Your task to perform on an android device: open a new tab in the chrome app Image 0: 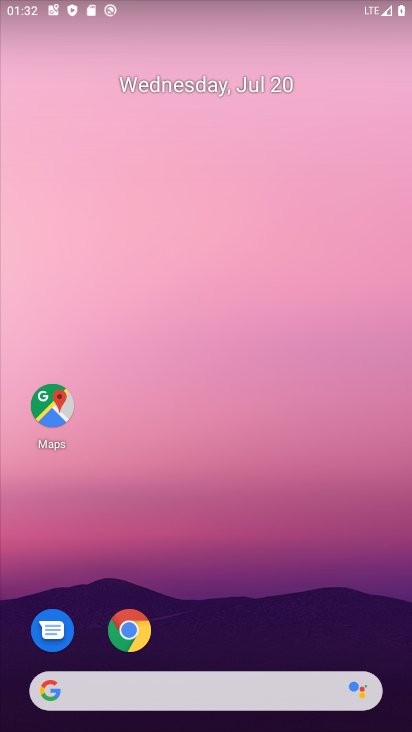
Step 0: drag from (280, 422) to (248, 87)
Your task to perform on an android device: open a new tab in the chrome app Image 1: 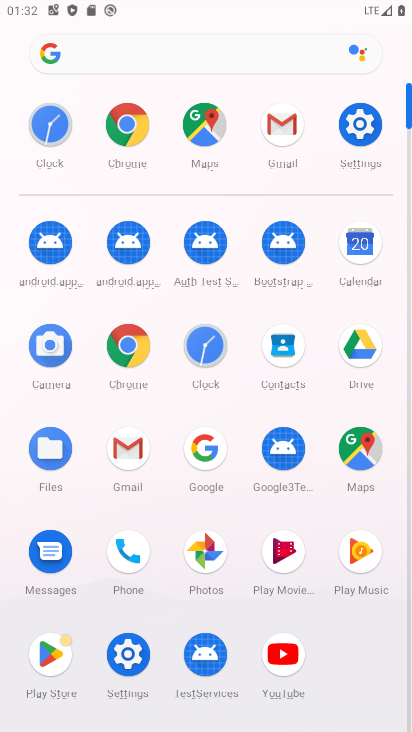
Step 1: click (130, 130)
Your task to perform on an android device: open a new tab in the chrome app Image 2: 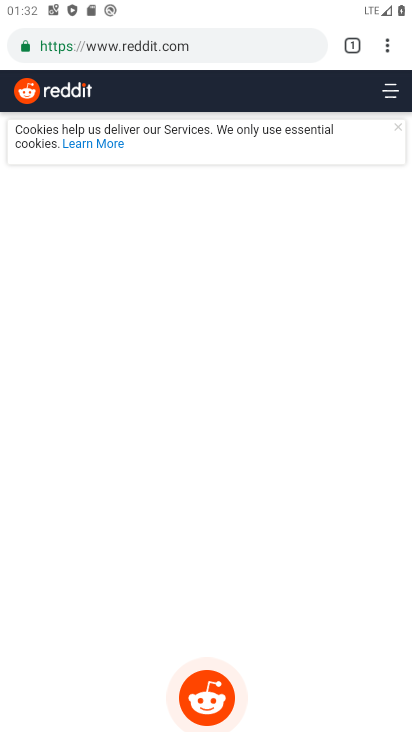
Step 2: task complete